Your task to perform on an android device: see sites visited before in the chrome app Image 0: 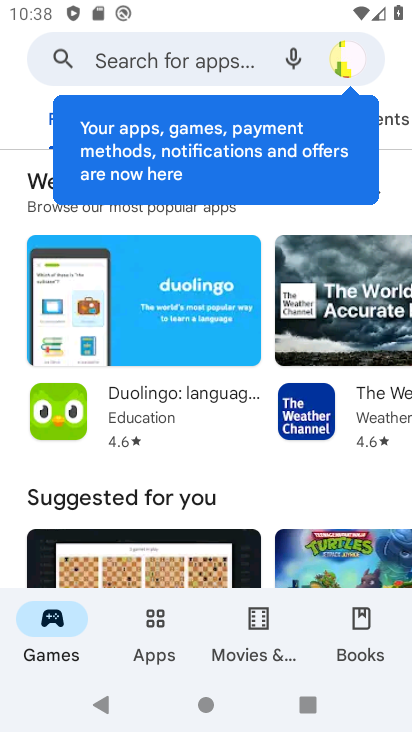
Step 0: press home button
Your task to perform on an android device: see sites visited before in the chrome app Image 1: 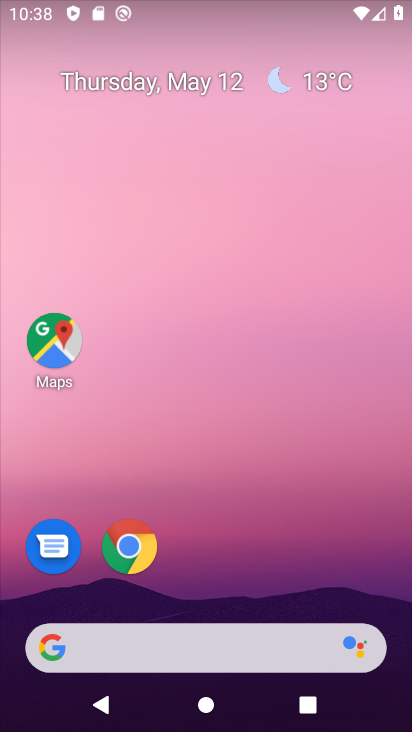
Step 1: drag from (234, 672) to (334, 55)
Your task to perform on an android device: see sites visited before in the chrome app Image 2: 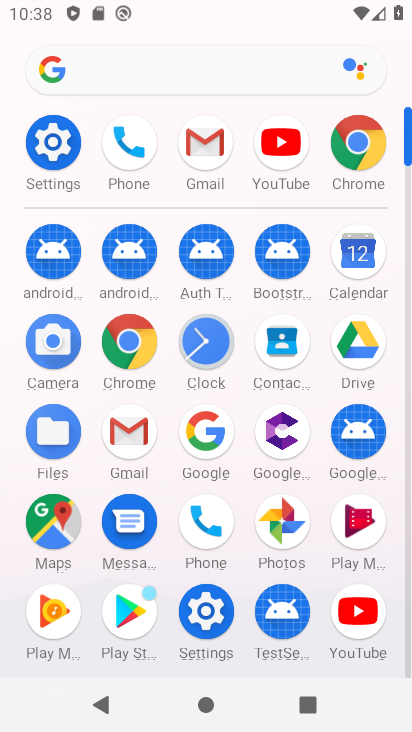
Step 2: click (124, 330)
Your task to perform on an android device: see sites visited before in the chrome app Image 3: 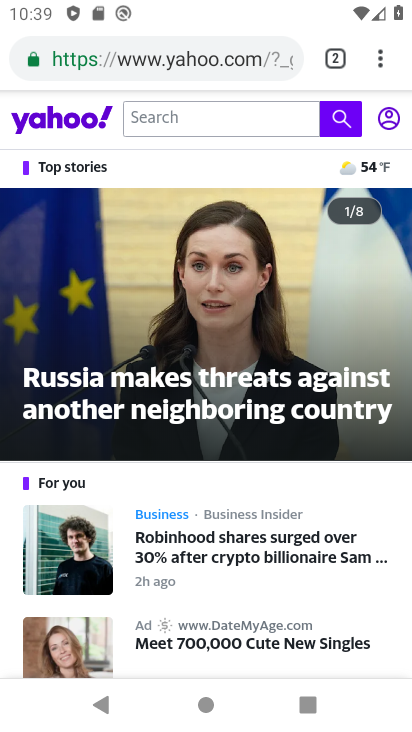
Step 3: click (368, 75)
Your task to perform on an android device: see sites visited before in the chrome app Image 4: 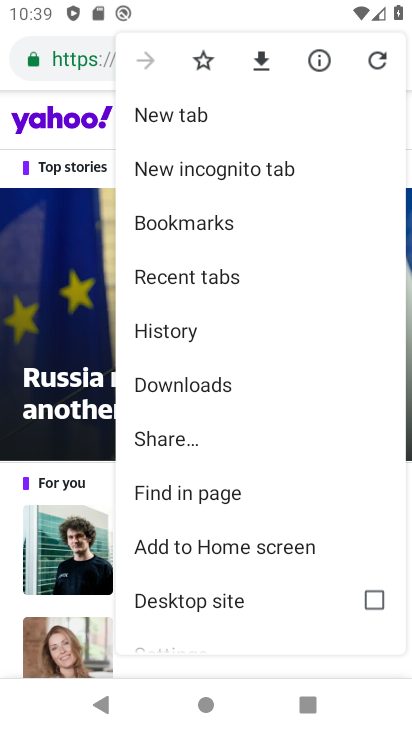
Step 4: drag from (163, 497) to (319, 219)
Your task to perform on an android device: see sites visited before in the chrome app Image 5: 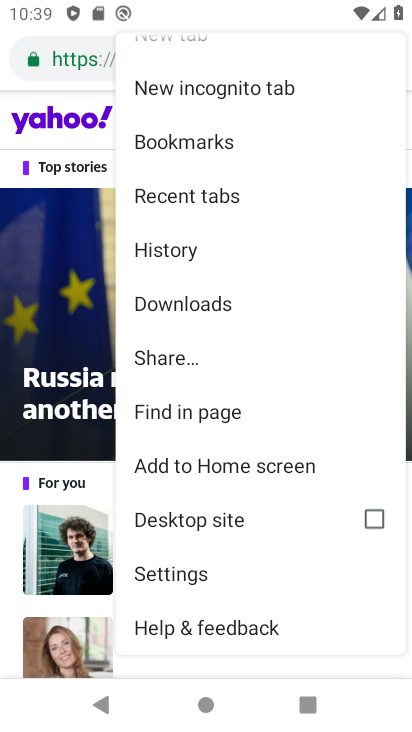
Step 5: click (173, 582)
Your task to perform on an android device: see sites visited before in the chrome app Image 6: 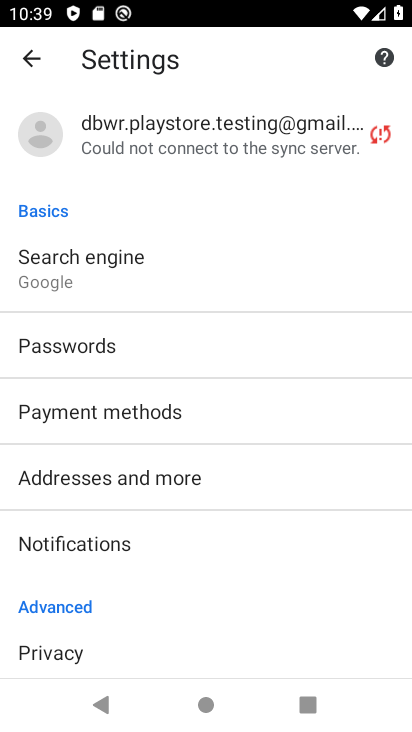
Step 6: drag from (139, 611) to (272, 326)
Your task to perform on an android device: see sites visited before in the chrome app Image 7: 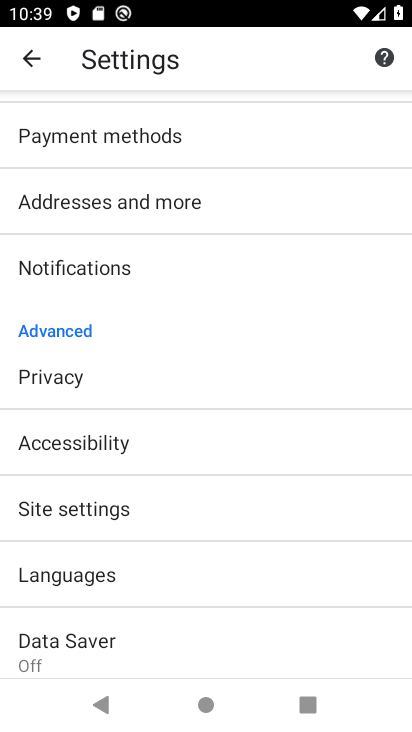
Step 7: drag from (88, 607) to (194, 408)
Your task to perform on an android device: see sites visited before in the chrome app Image 8: 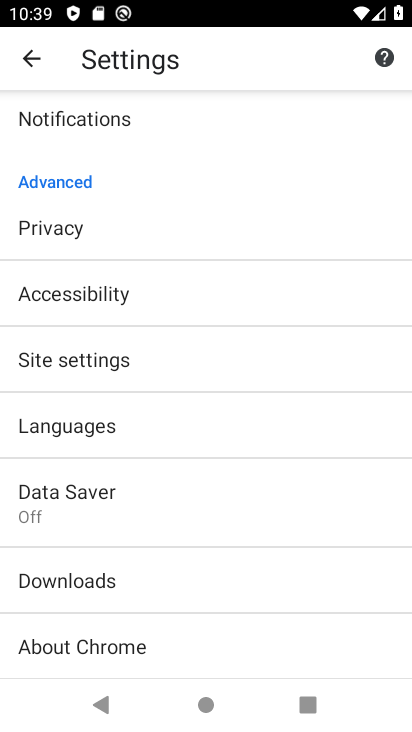
Step 8: click (112, 354)
Your task to perform on an android device: see sites visited before in the chrome app Image 9: 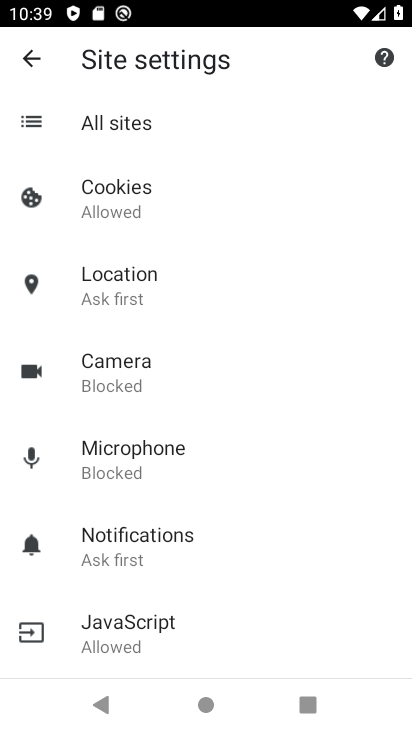
Step 9: click (131, 140)
Your task to perform on an android device: see sites visited before in the chrome app Image 10: 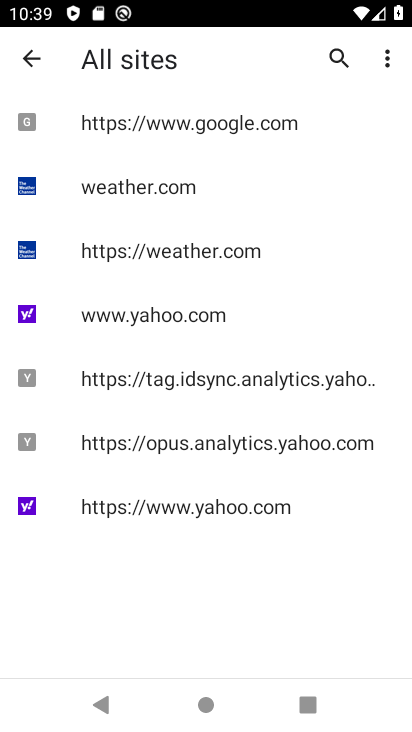
Step 10: task complete